Your task to perform on an android device: turn off smart reply in the gmail app Image 0: 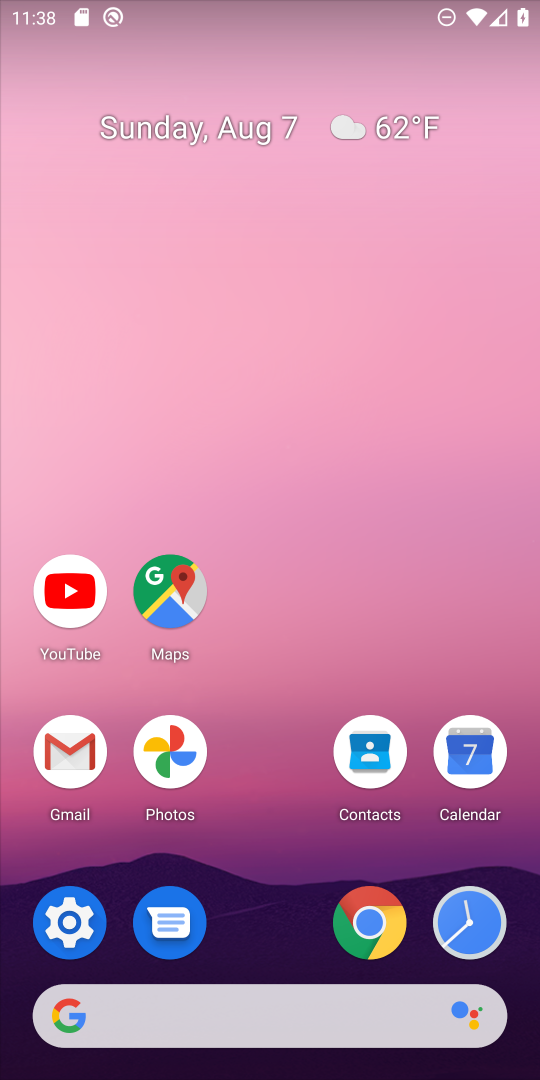
Step 0: click (60, 749)
Your task to perform on an android device: turn off smart reply in the gmail app Image 1: 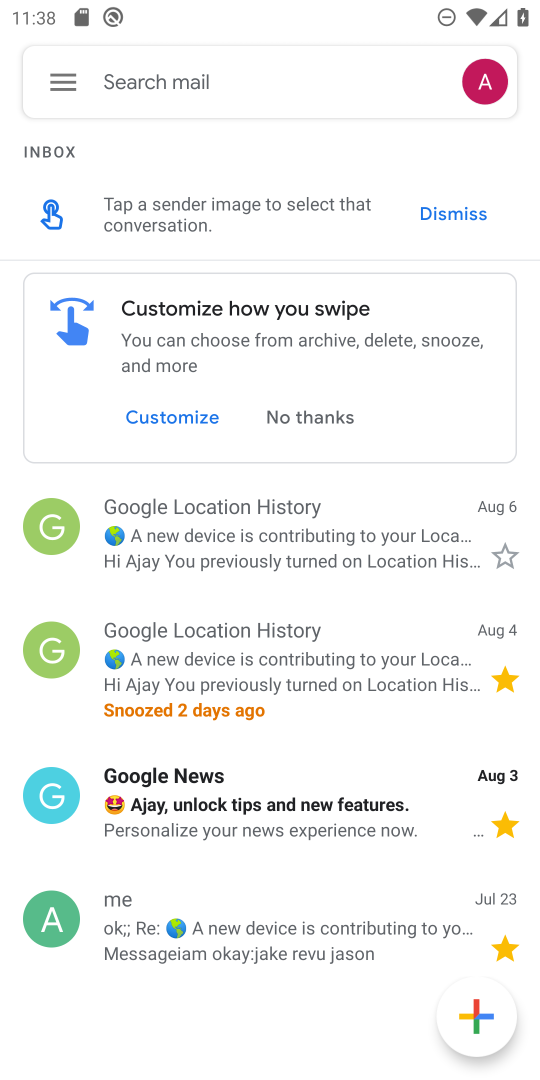
Step 1: click (67, 64)
Your task to perform on an android device: turn off smart reply in the gmail app Image 2: 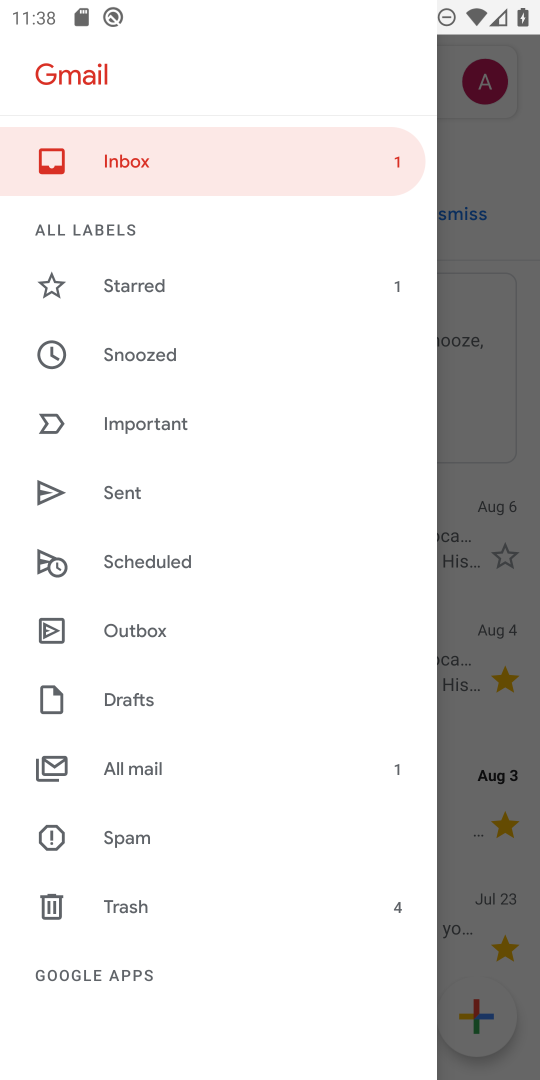
Step 2: drag from (224, 863) to (243, 525)
Your task to perform on an android device: turn off smart reply in the gmail app Image 3: 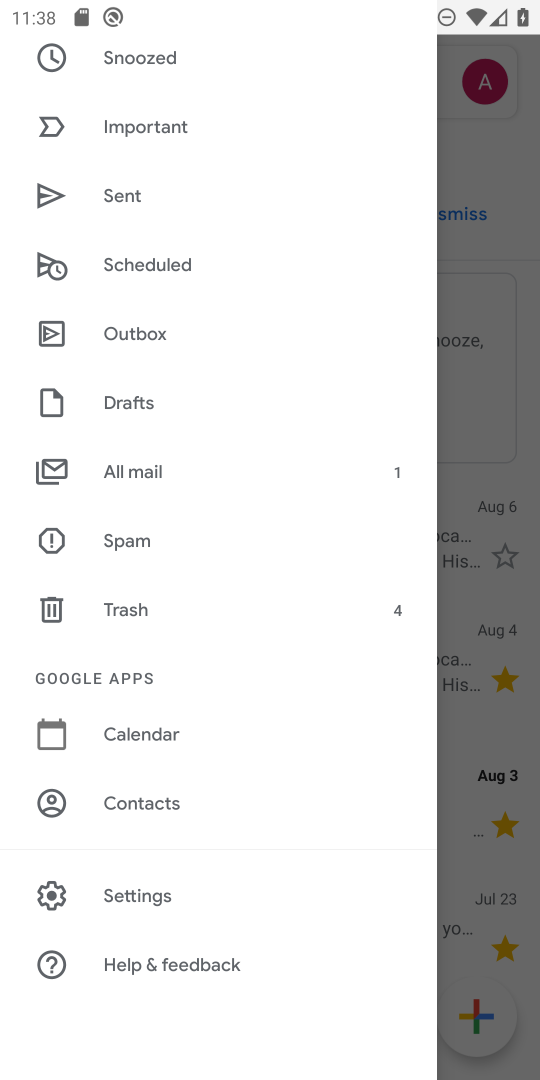
Step 3: click (142, 885)
Your task to perform on an android device: turn off smart reply in the gmail app Image 4: 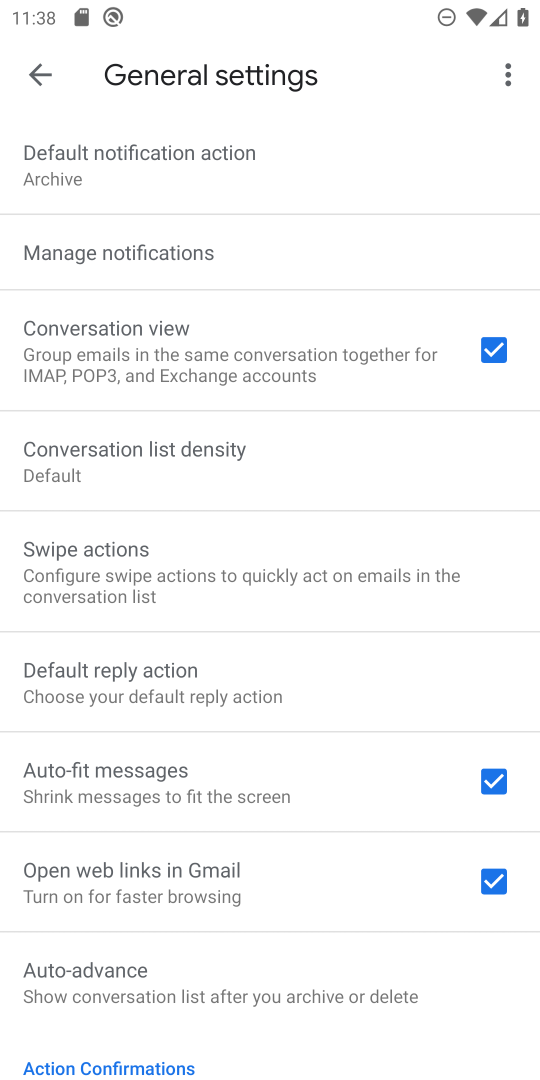
Step 4: click (29, 72)
Your task to perform on an android device: turn off smart reply in the gmail app Image 5: 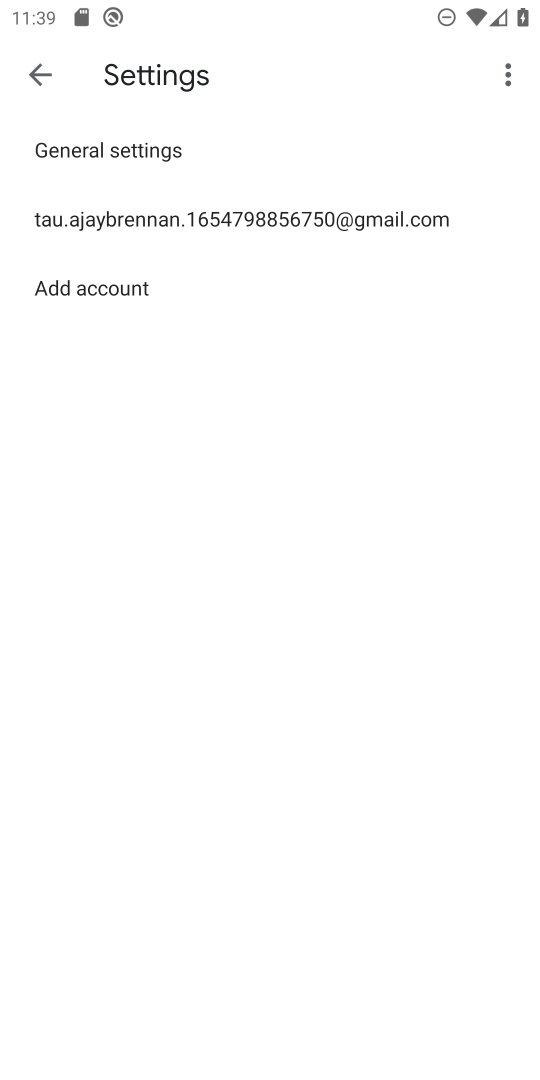
Step 5: click (108, 218)
Your task to perform on an android device: turn off smart reply in the gmail app Image 6: 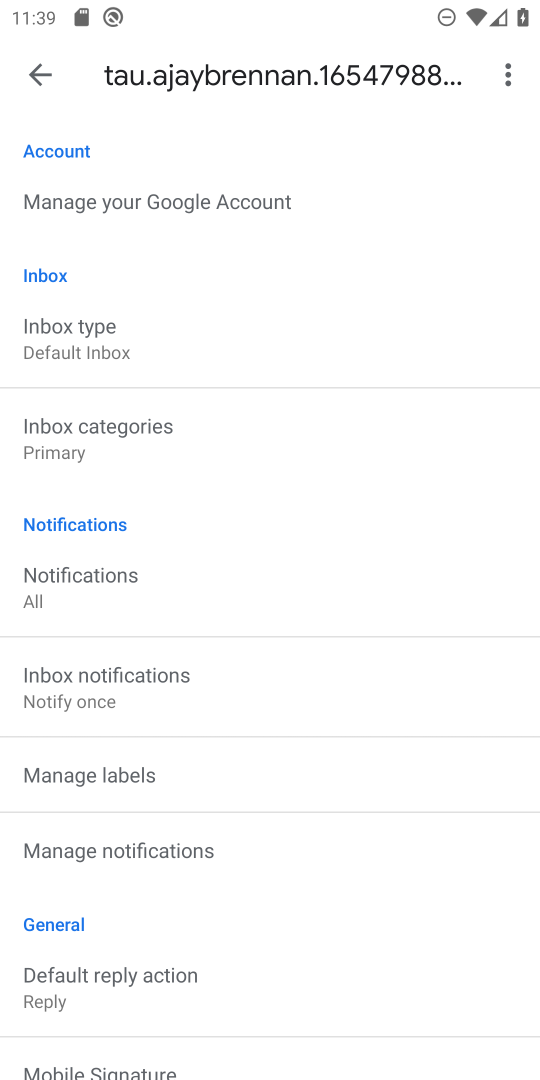
Step 6: drag from (306, 920) to (278, 468)
Your task to perform on an android device: turn off smart reply in the gmail app Image 7: 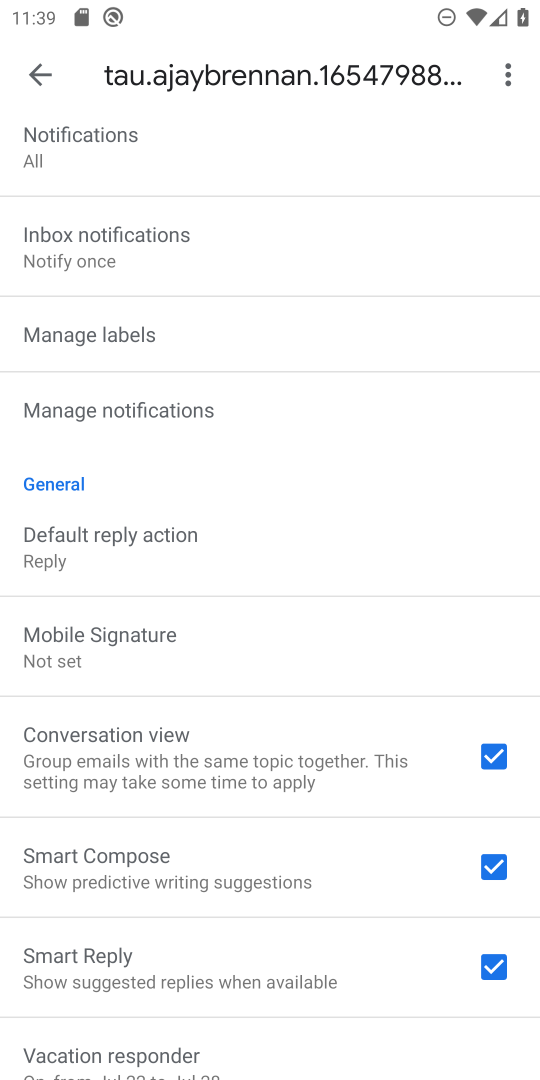
Step 7: click (501, 967)
Your task to perform on an android device: turn off smart reply in the gmail app Image 8: 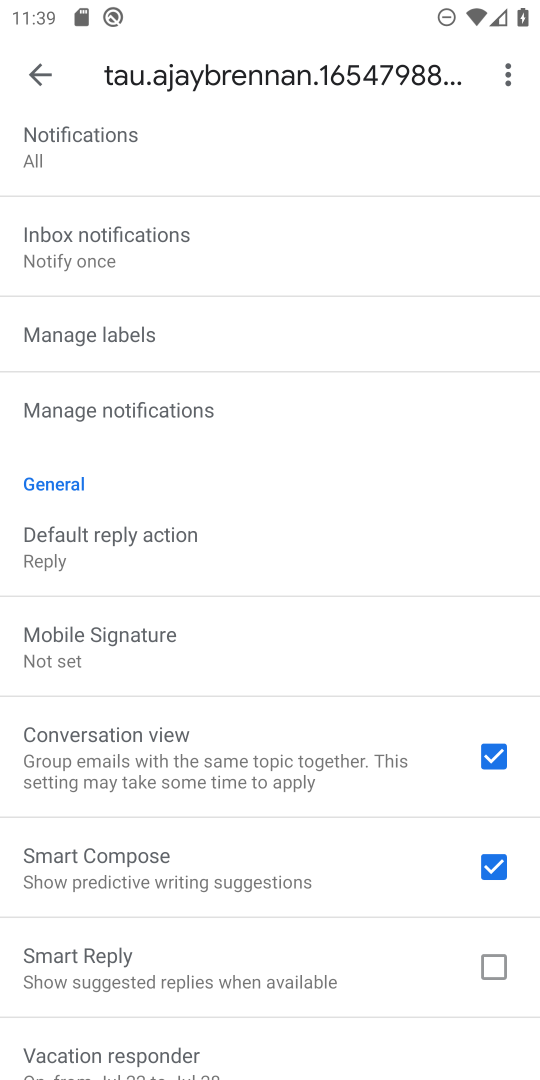
Step 8: task complete